Your task to perform on an android device: clear history in the chrome app Image 0: 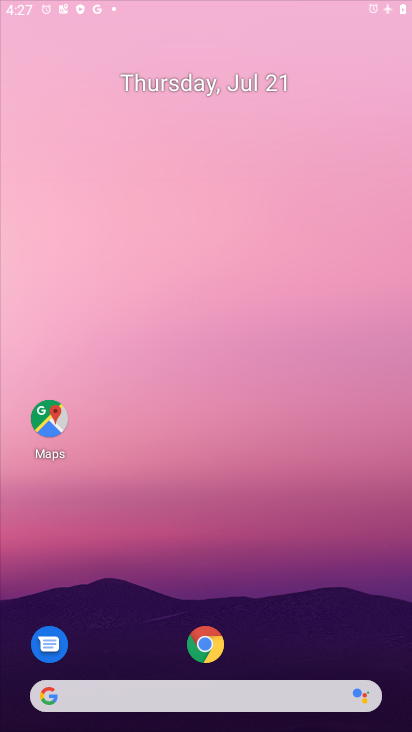
Step 0: press home button
Your task to perform on an android device: clear history in the chrome app Image 1: 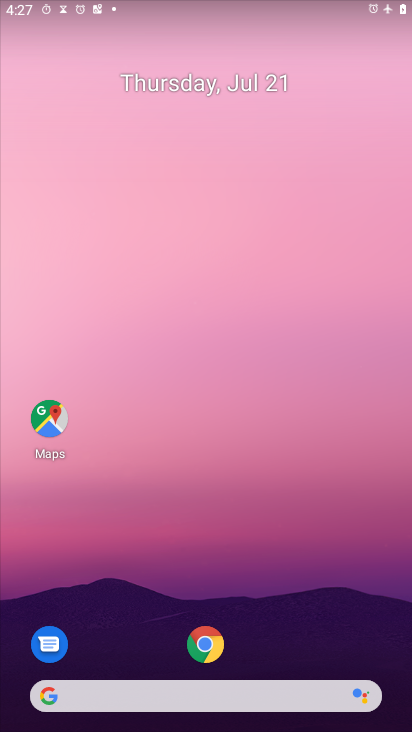
Step 1: drag from (288, 650) to (403, 0)
Your task to perform on an android device: clear history in the chrome app Image 2: 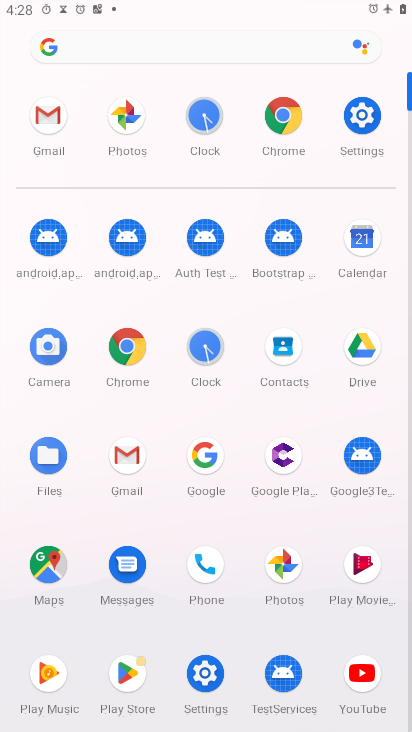
Step 2: click (277, 115)
Your task to perform on an android device: clear history in the chrome app Image 3: 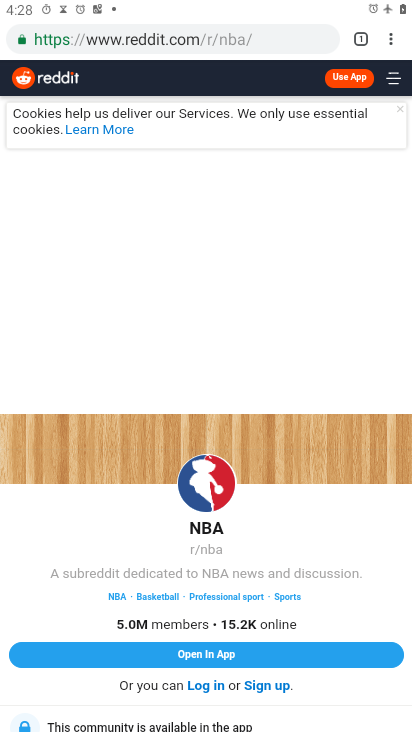
Step 3: drag from (389, 34) to (257, 274)
Your task to perform on an android device: clear history in the chrome app Image 4: 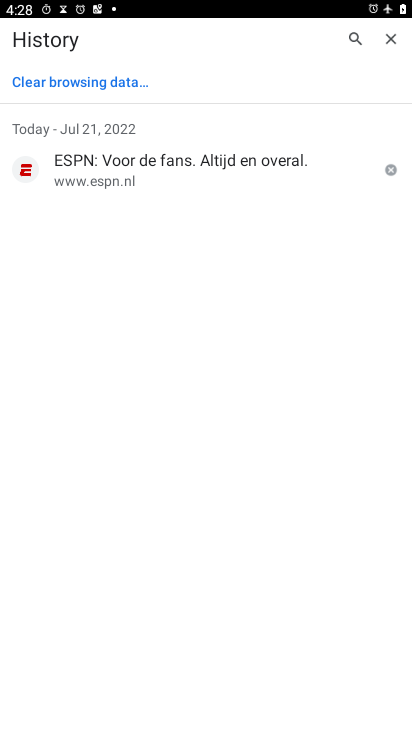
Step 4: click (76, 79)
Your task to perform on an android device: clear history in the chrome app Image 5: 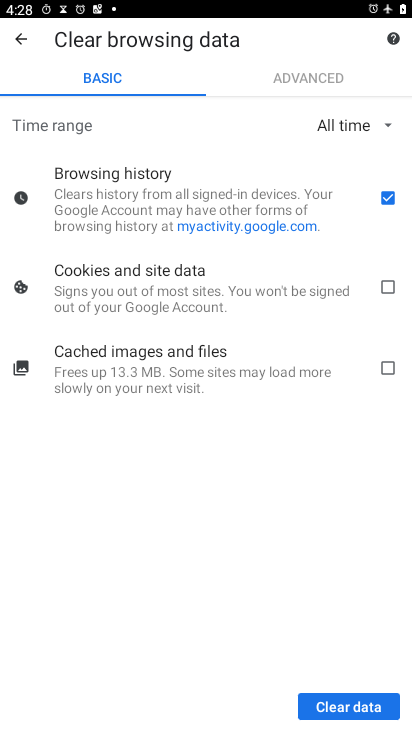
Step 5: click (360, 704)
Your task to perform on an android device: clear history in the chrome app Image 6: 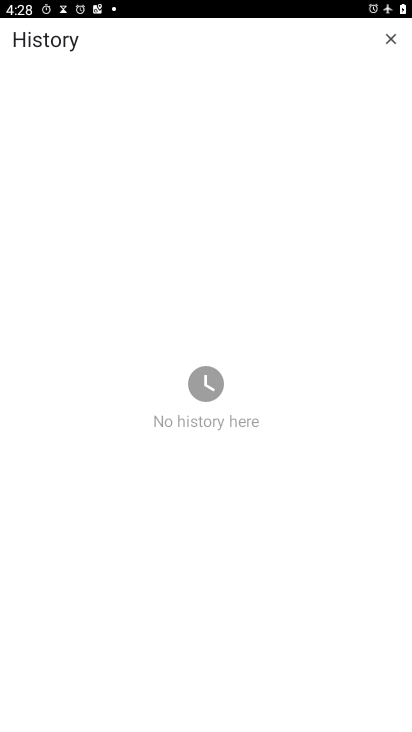
Step 6: task complete